Your task to perform on an android device: Open maps Image 0: 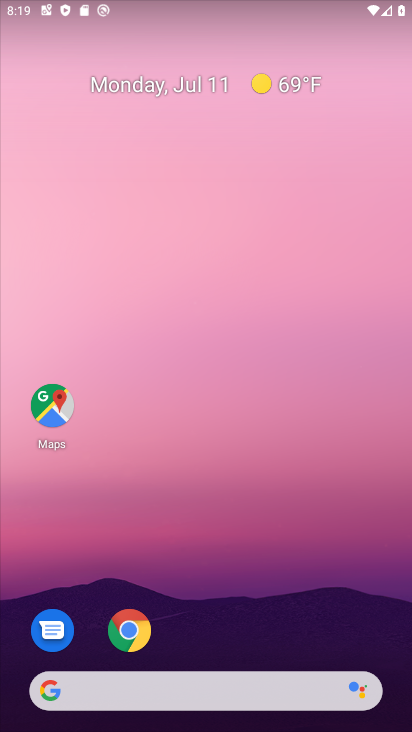
Step 0: drag from (184, 683) to (133, 114)
Your task to perform on an android device: Open maps Image 1: 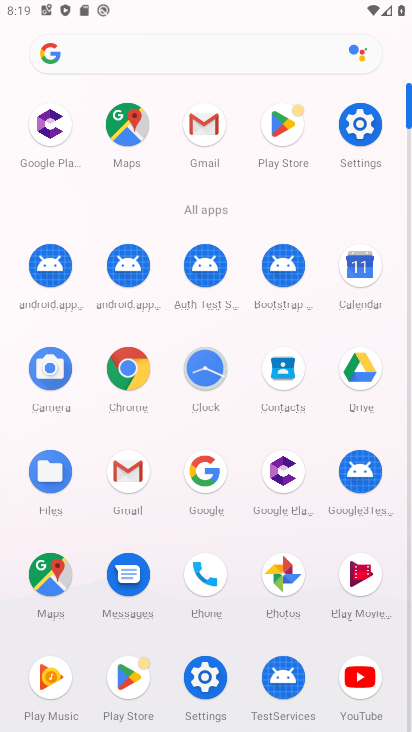
Step 1: click (127, 128)
Your task to perform on an android device: Open maps Image 2: 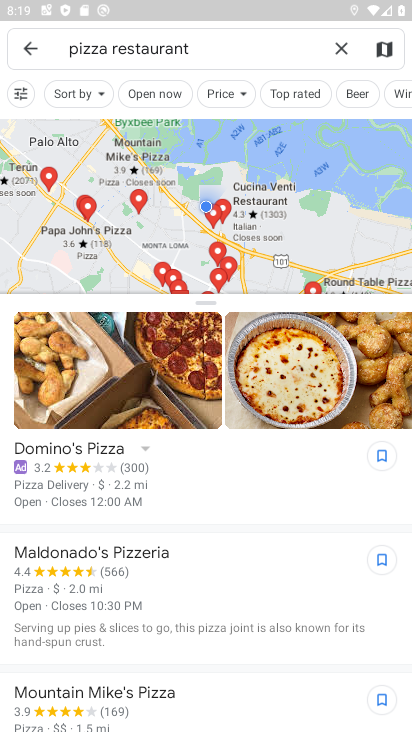
Step 2: task complete